Your task to perform on an android device: turn off sleep mode Image 0: 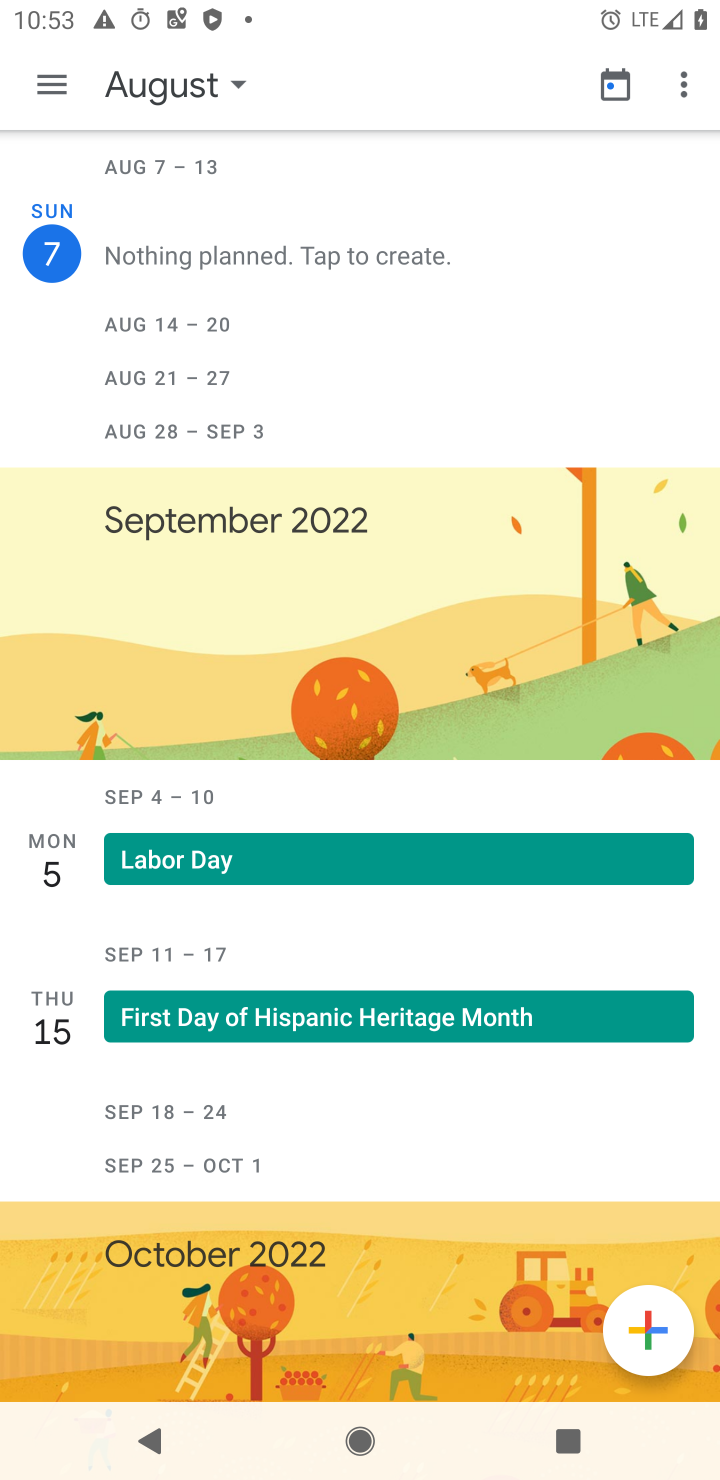
Step 0: press home button
Your task to perform on an android device: turn off sleep mode Image 1: 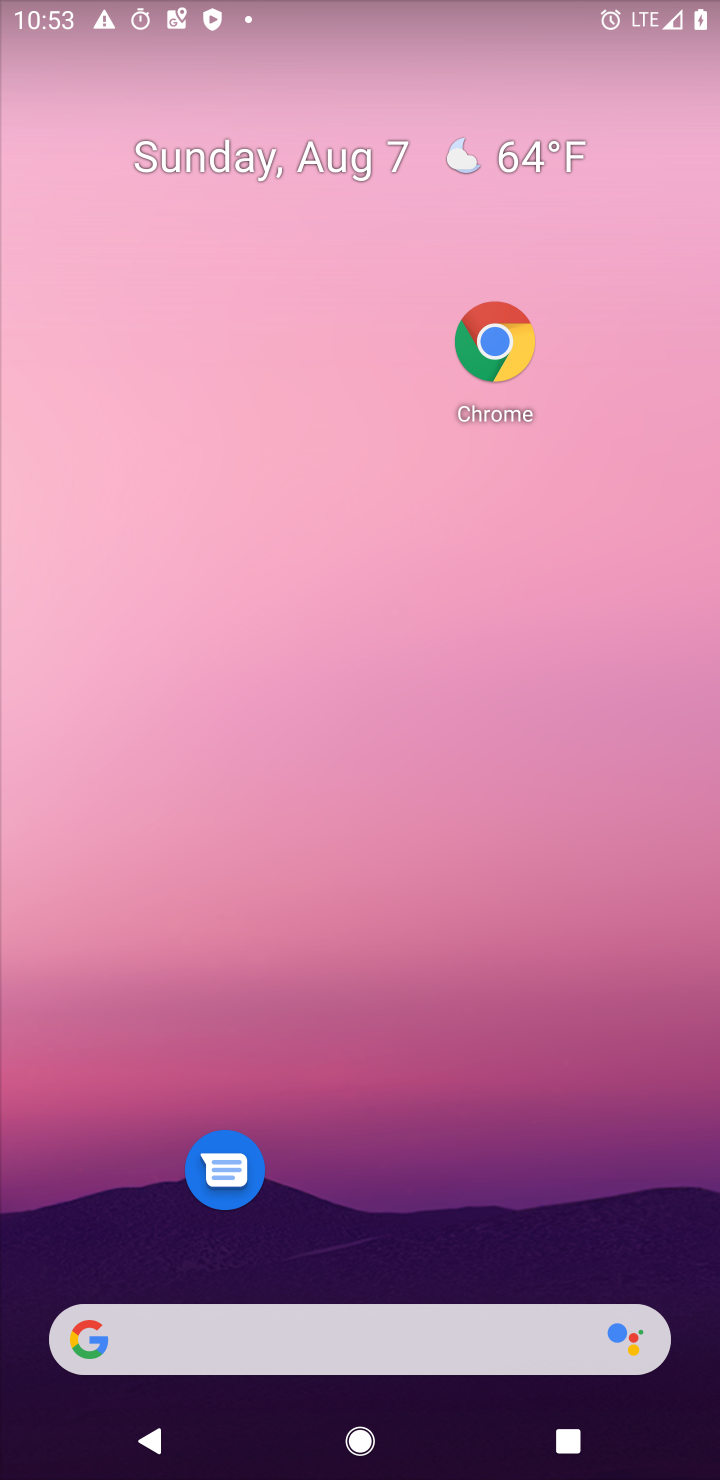
Step 1: drag from (259, 1328) to (405, 26)
Your task to perform on an android device: turn off sleep mode Image 2: 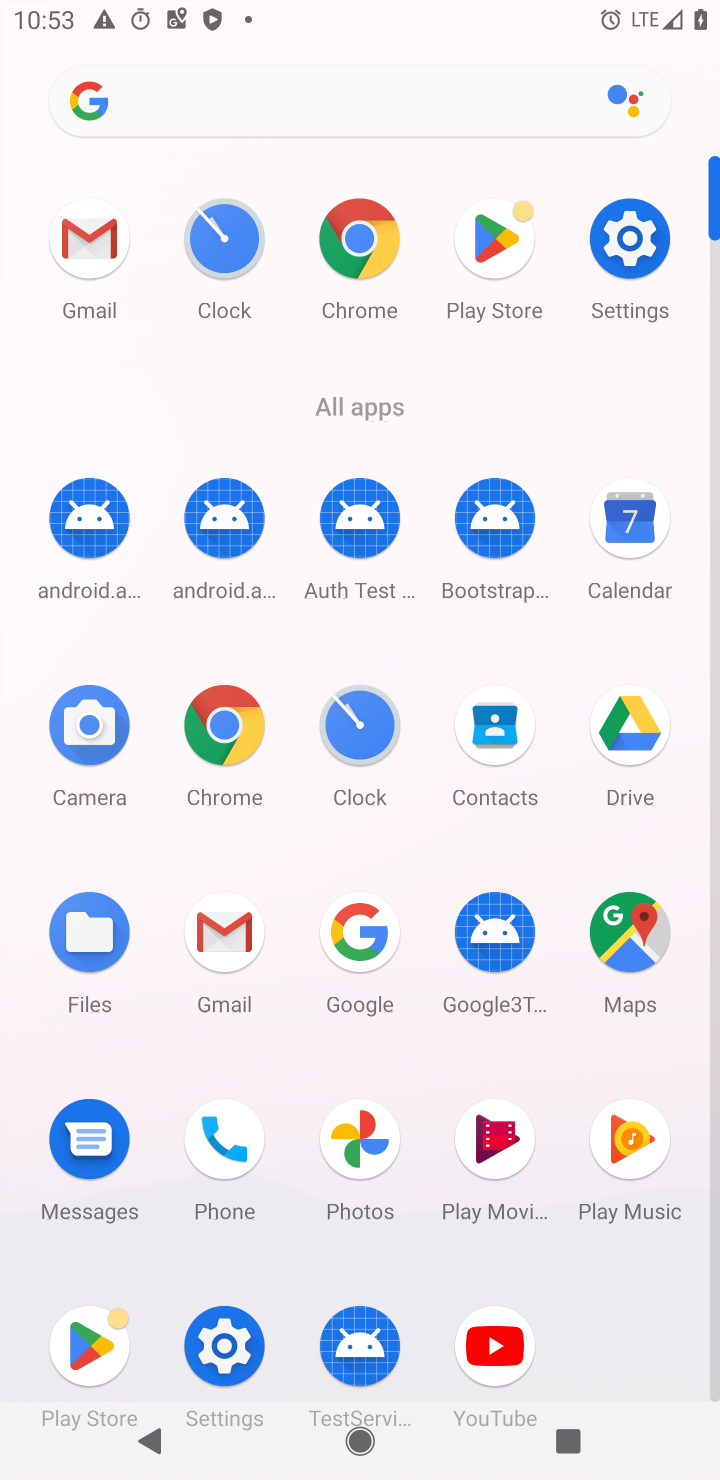
Step 2: click (620, 236)
Your task to perform on an android device: turn off sleep mode Image 3: 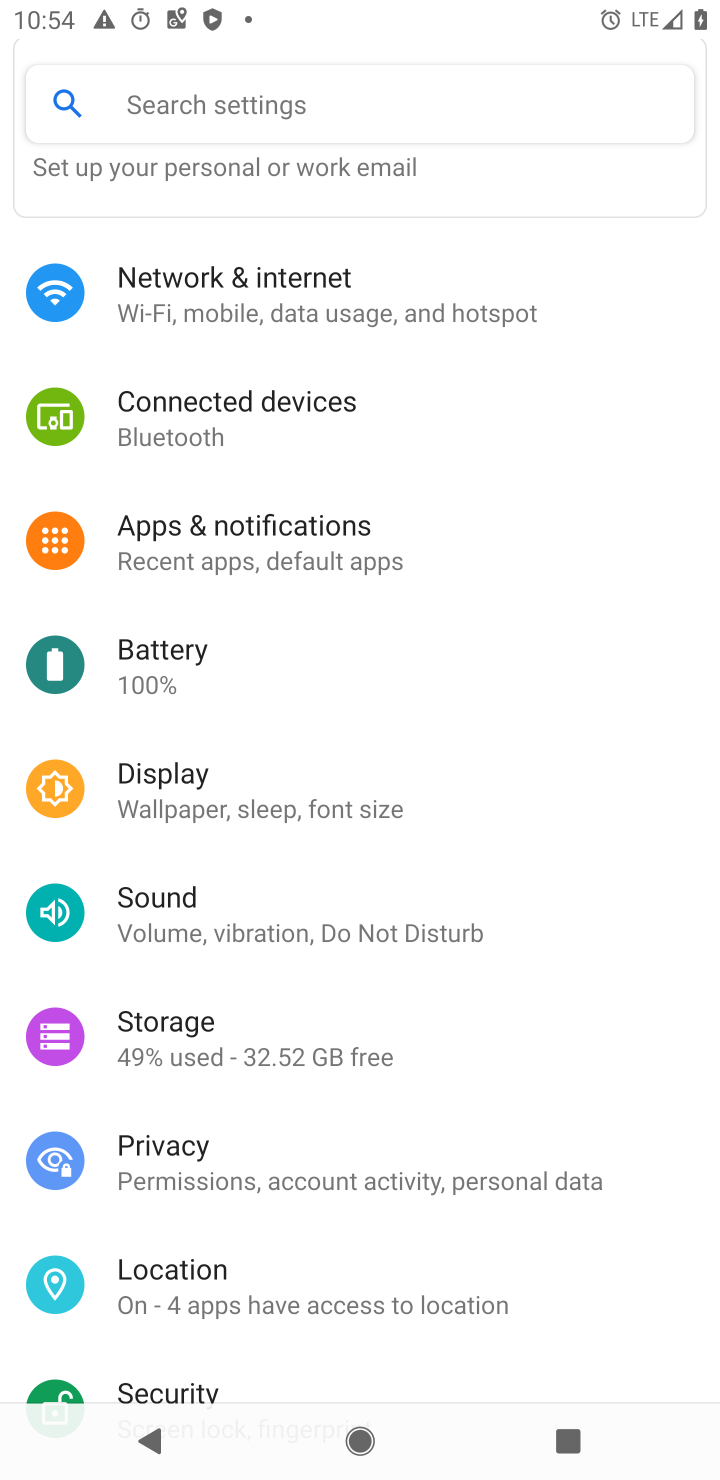
Step 3: click (282, 783)
Your task to perform on an android device: turn off sleep mode Image 4: 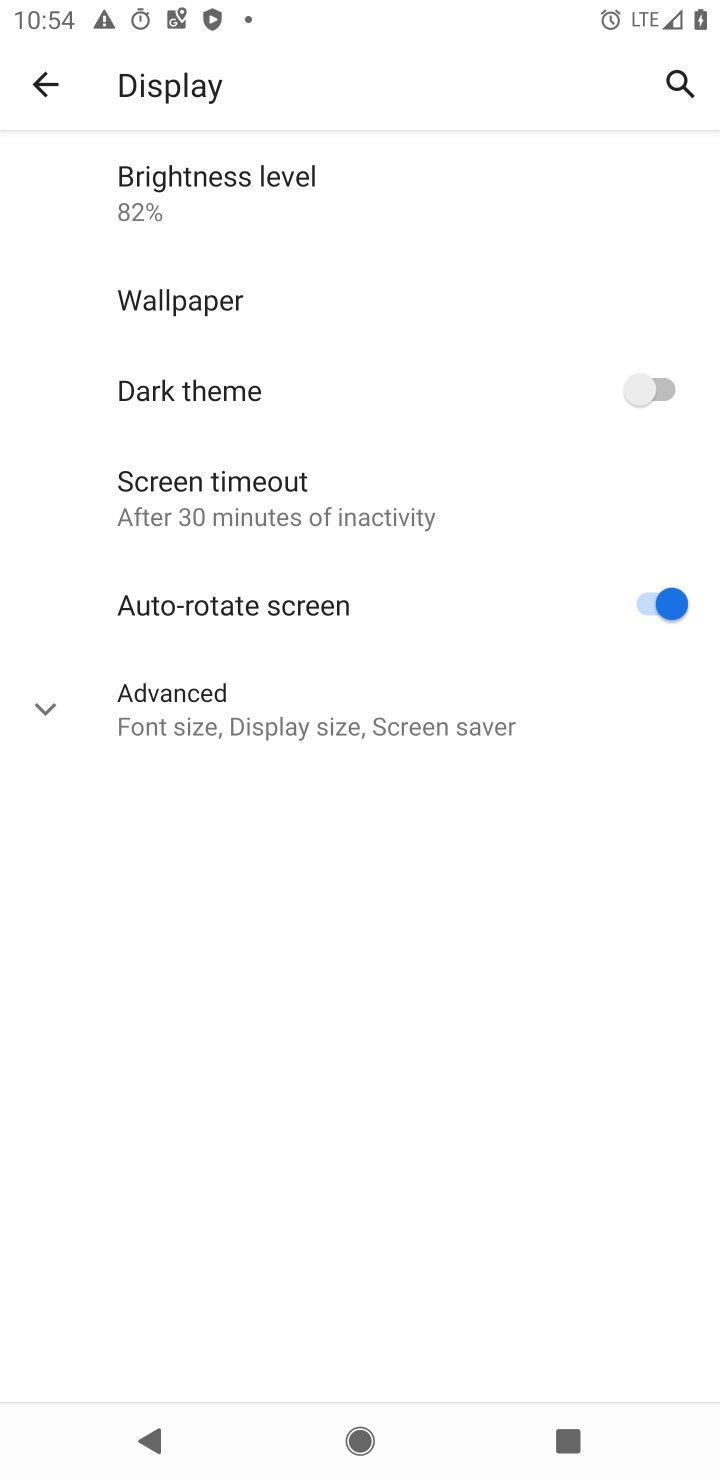
Step 4: task complete